Your task to perform on an android device: Show me popular videos on Youtube Image 0: 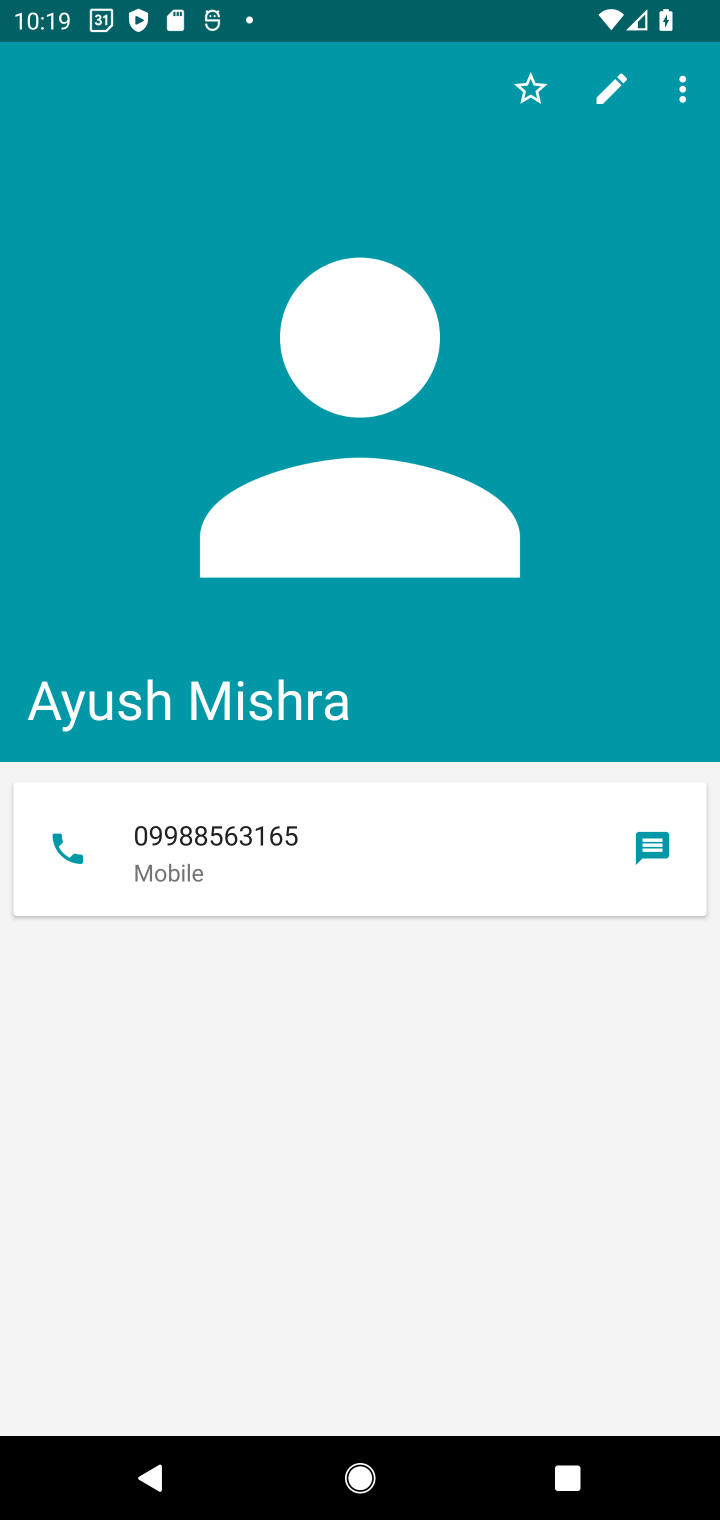
Step 0: press home button
Your task to perform on an android device: Show me popular videos on Youtube Image 1: 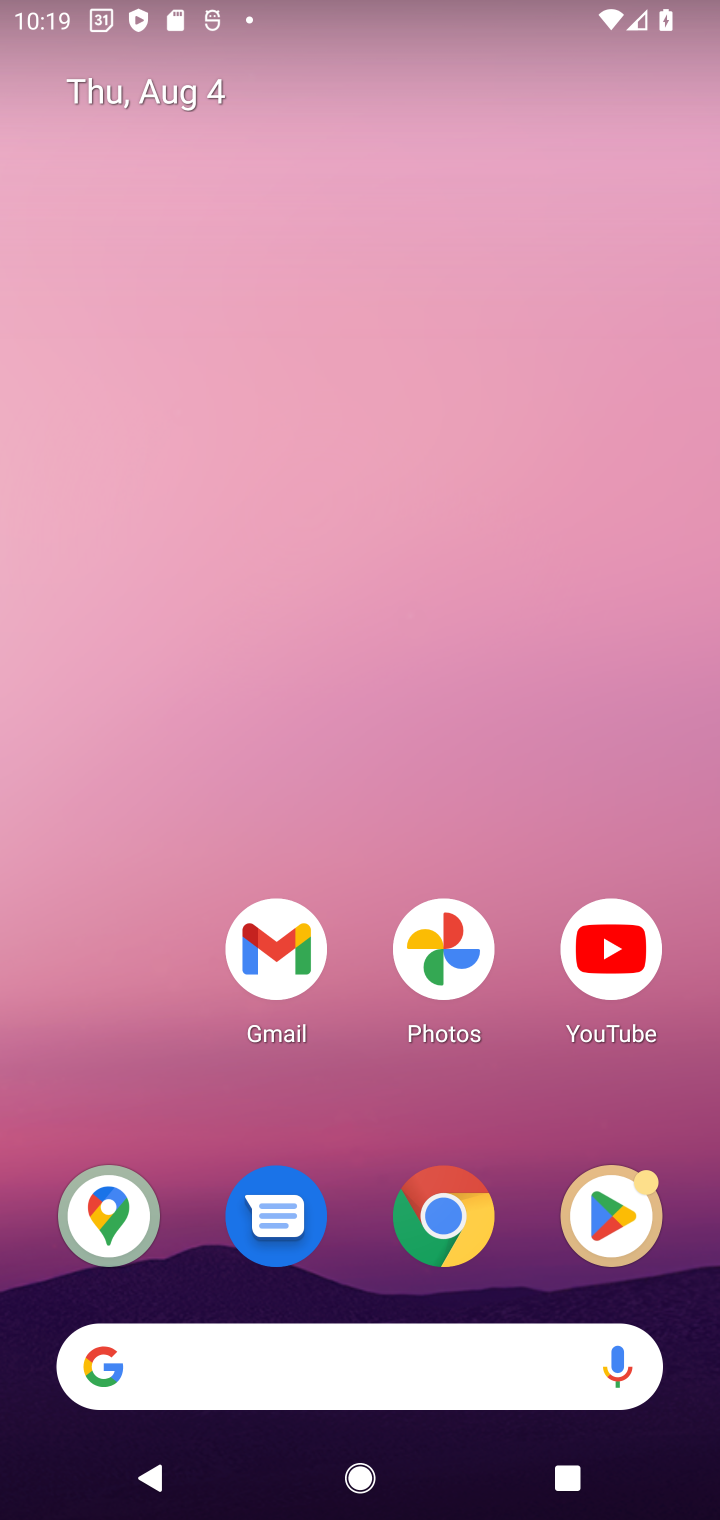
Step 1: click (606, 955)
Your task to perform on an android device: Show me popular videos on Youtube Image 2: 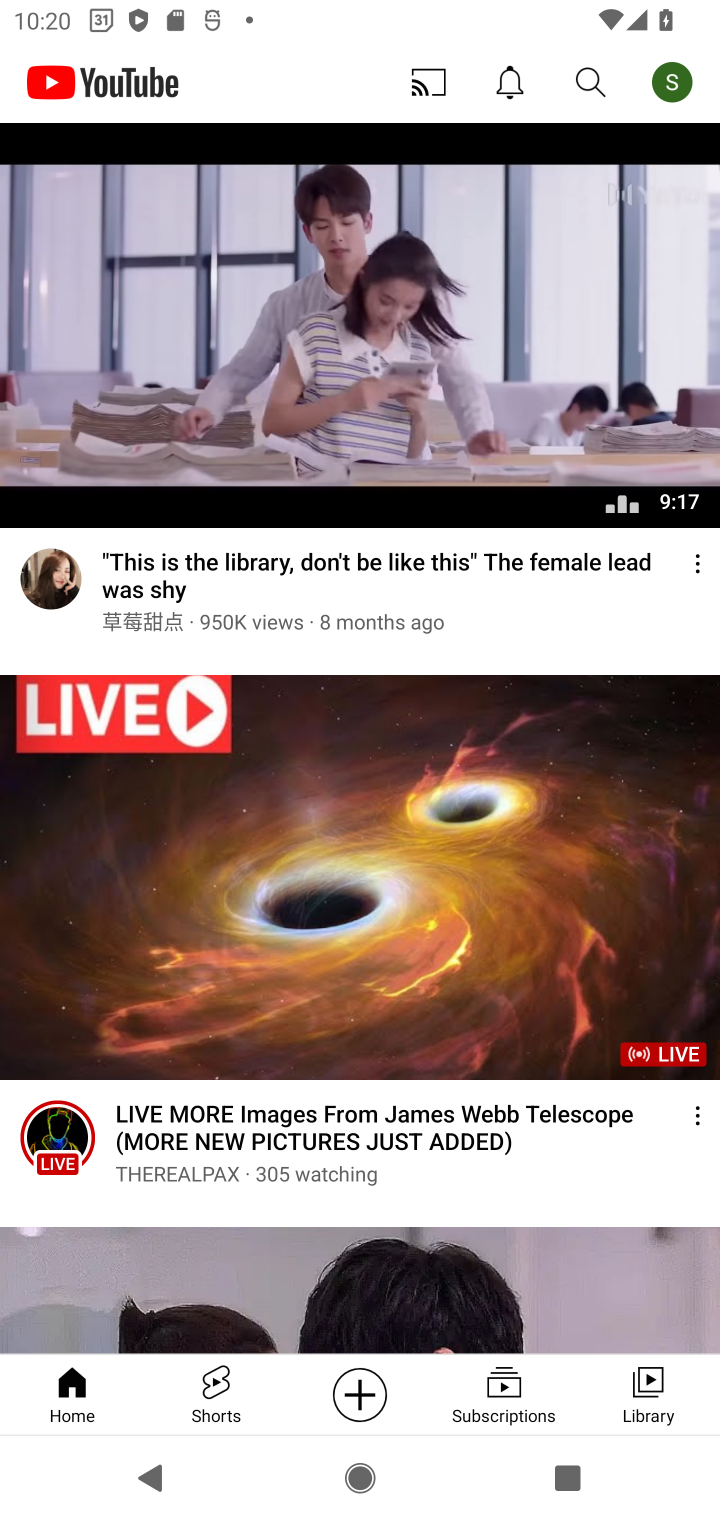
Step 2: click (590, 80)
Your task to perform on an android device: Show me popular videos on Youtube Image 3: 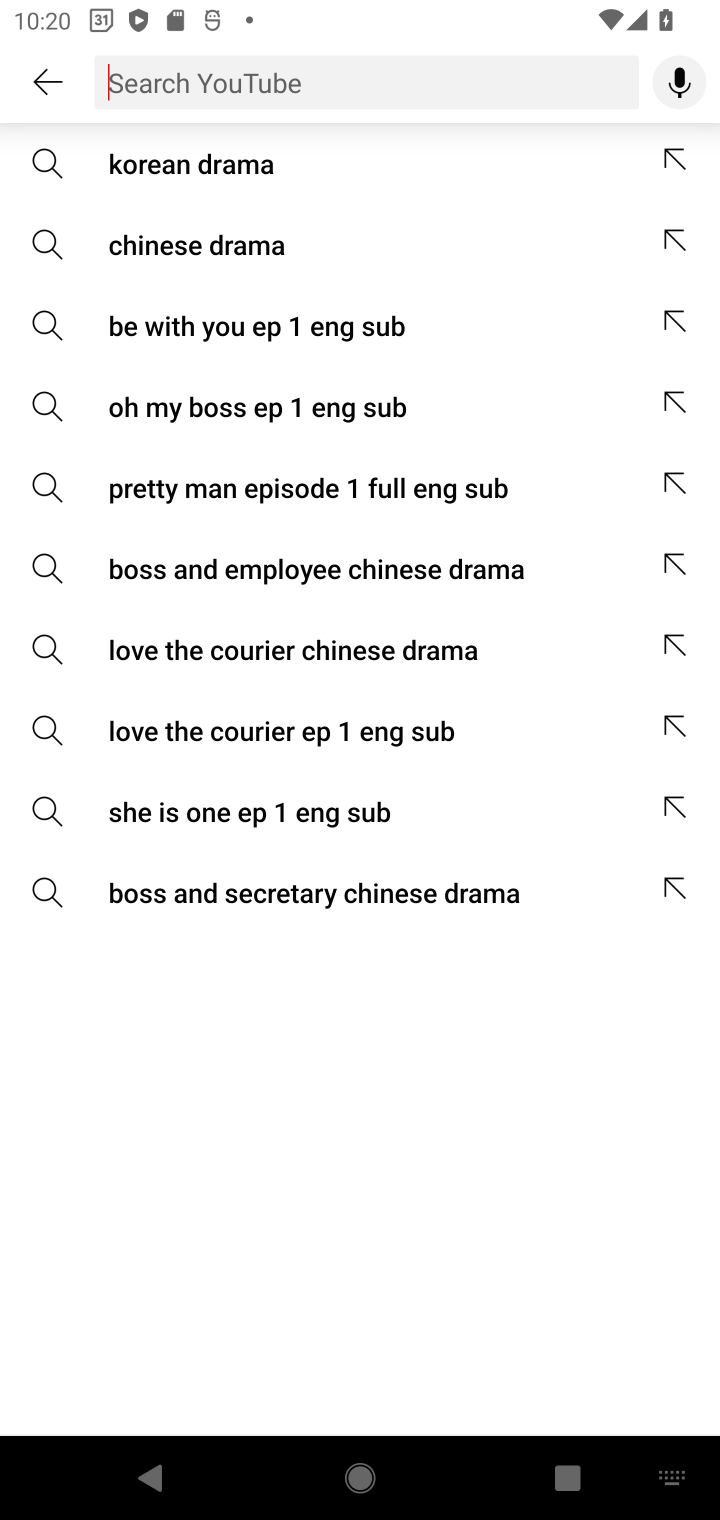
Step 3: type "popular video"
Your task to perform on an android device: Show me popular videos on Youtube Image 4: 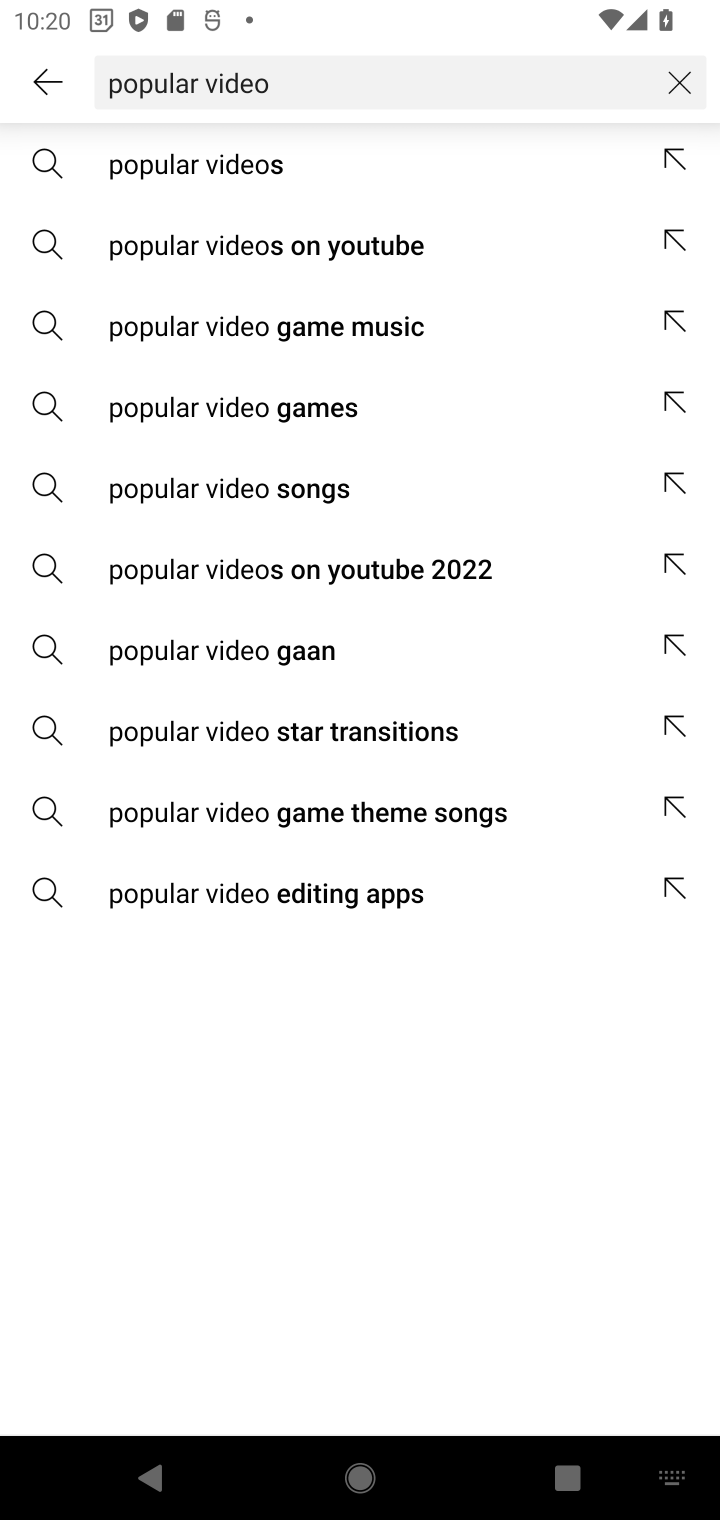
Step 4: click (415, 238)
Your task to perform on an android device: Show me popular videos on Youtube Image 5: 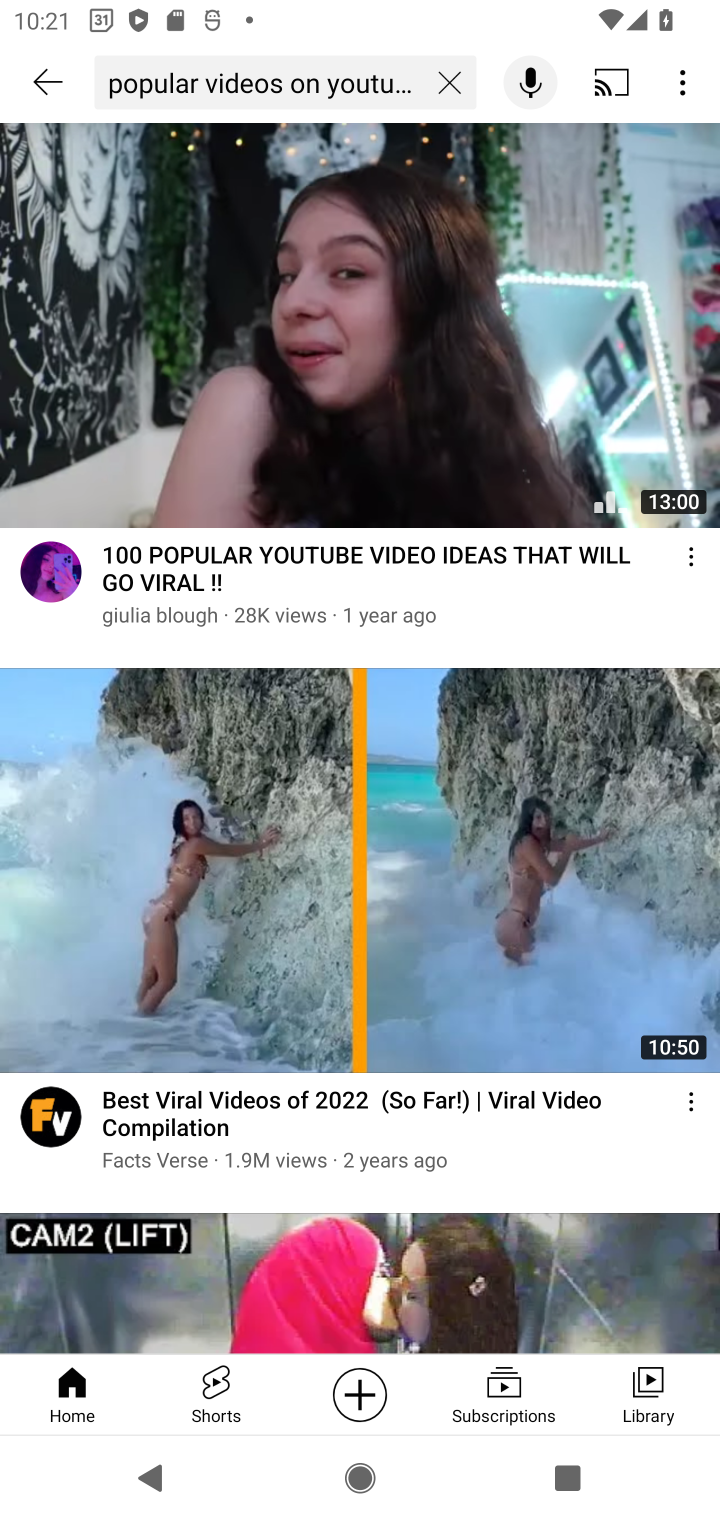
Step 5: task complete